Your task to perform on an android device: Check the news Image 0: 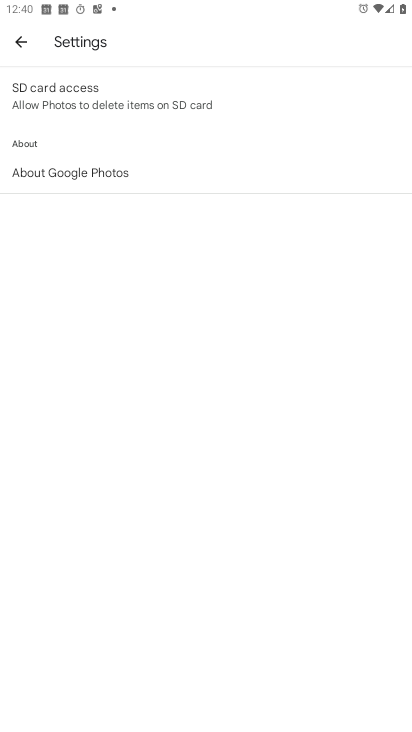
Step 0: press home button
Your task to perform on an android device: Check the news Image 1: 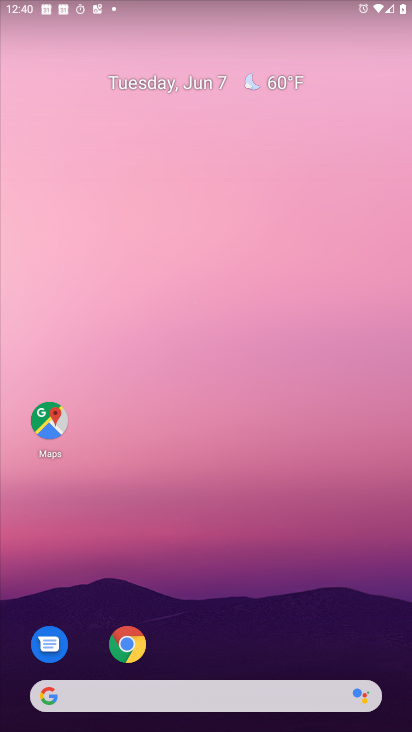
Step 1: click (169, 696)
Your task to perform on an android device: Check the news Image 2: 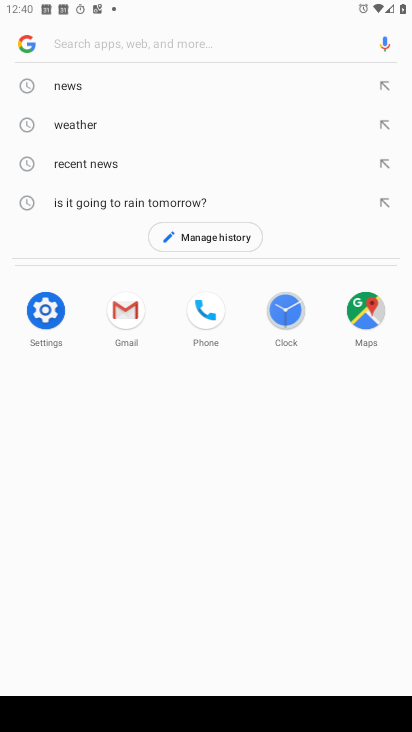
Step 2: click (56, 88)
Your task to perform on an android device: Check the news Image 3: 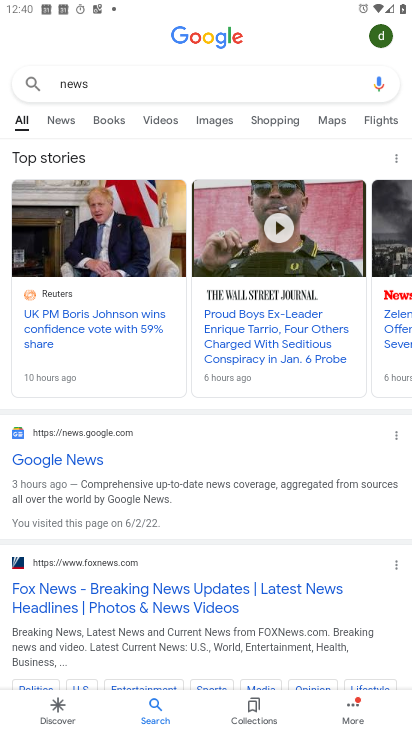
Step 3: task complete